Your task to perform on an android device: Open Amazon Image 0: 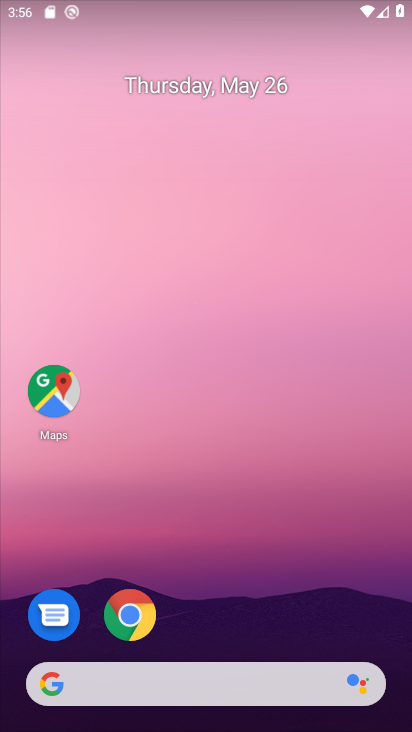
Step 0: click (111, 623)
Your task to perform on an android device: Open Amazon Image 1: 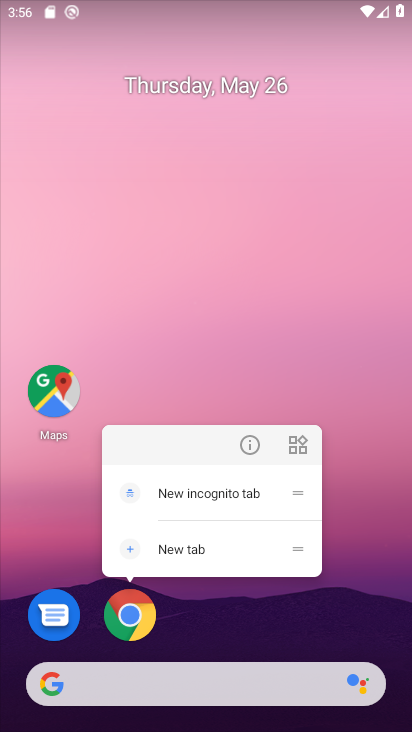
Step 1: click (143, 619)
Your task to perform on an android device: Open Amazon Image 2: 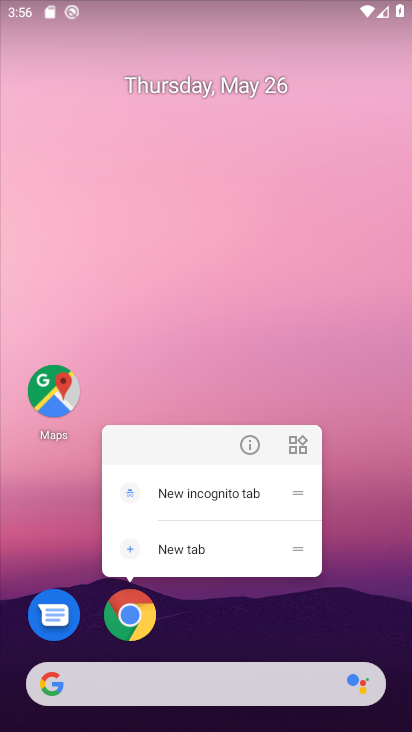
Step 2: click (143, 619)
Your task to perform on an android device: Open Amazon Image 3: 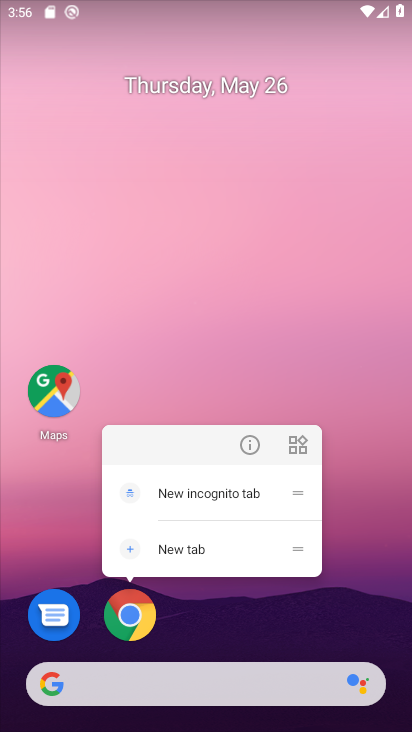
Step 3: click (143, 612)
Your task to perform on an android device: Open Amazon Image 4: 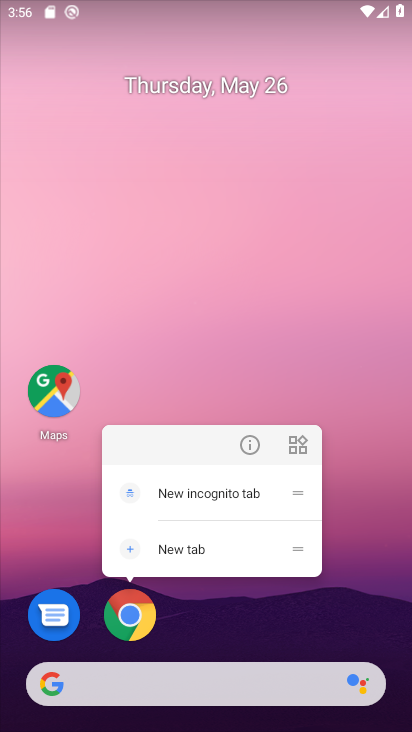
Step 4: click (130, 617)
Your task to perform on an android device: Open Amazon Image 5: 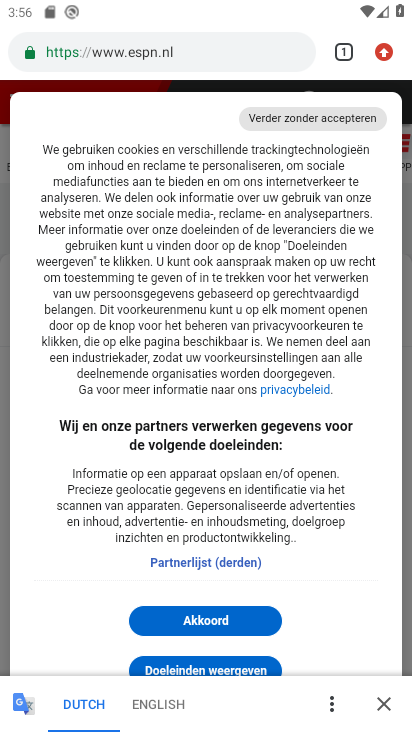
Step 5: drag from (390, 42) to (301, 149)
Your task to perform on an android device: Open Amazon Image 6: 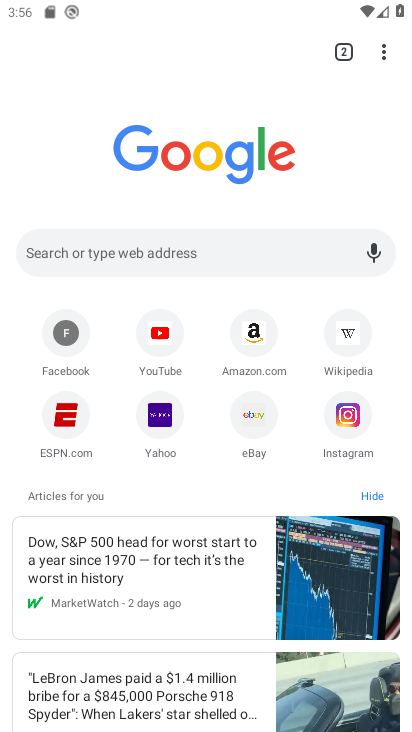
Step 6: click (264, 354)
Your task to perform on an android device: Open Amazon Image 7: 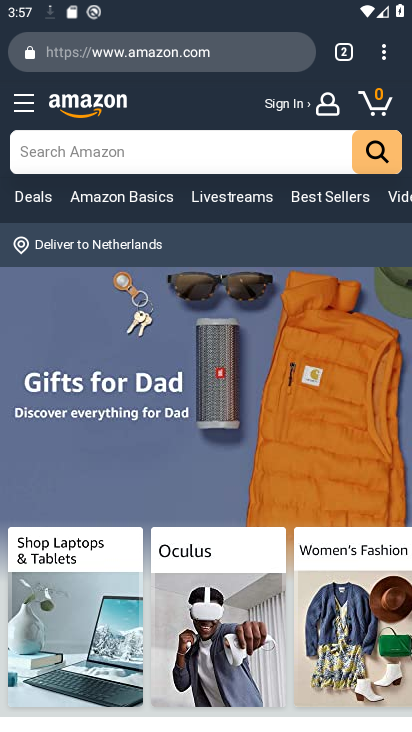
Step 7: task complete